Your task to perform on an android device: install app "VLC for Android" Image 0: 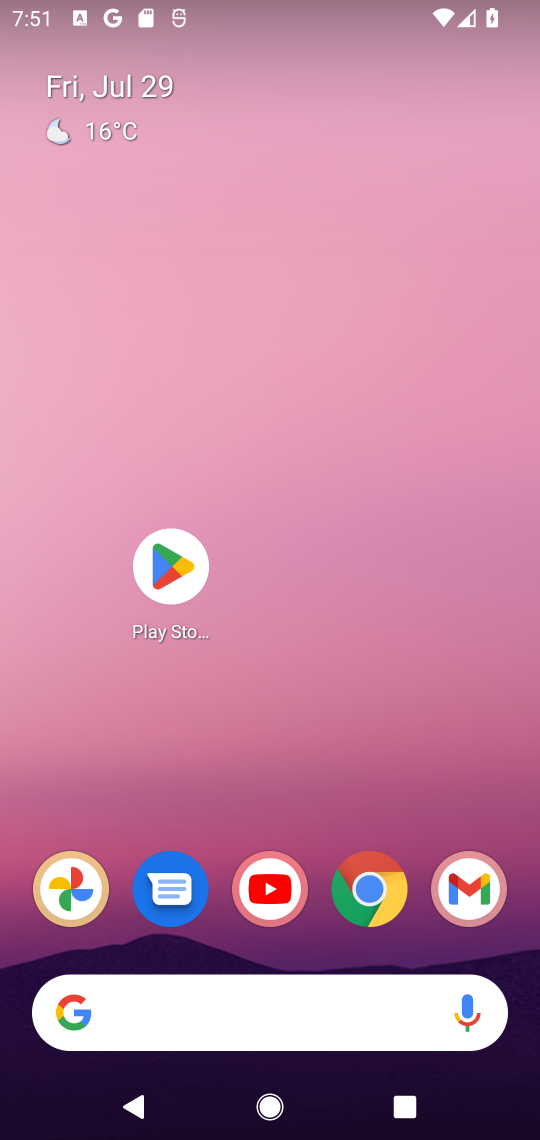
Step 0: click (176, 580)
Your task to perform on an android device: install app "VLC for Android" Image 1: 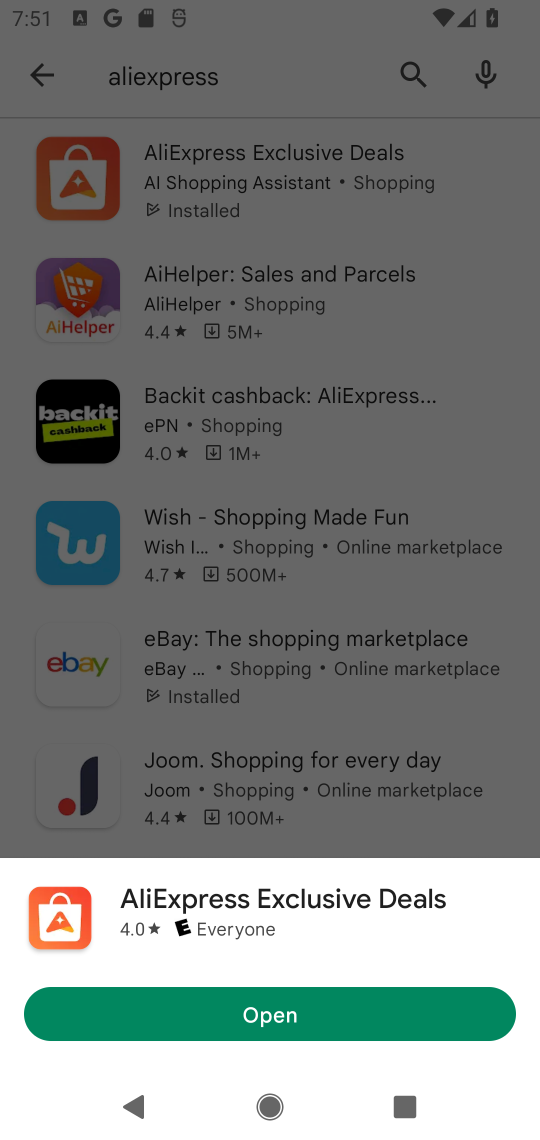
Step 1: click (404, 69)
Your task to perform on an android device: install app "VLC for Android" Image 2: 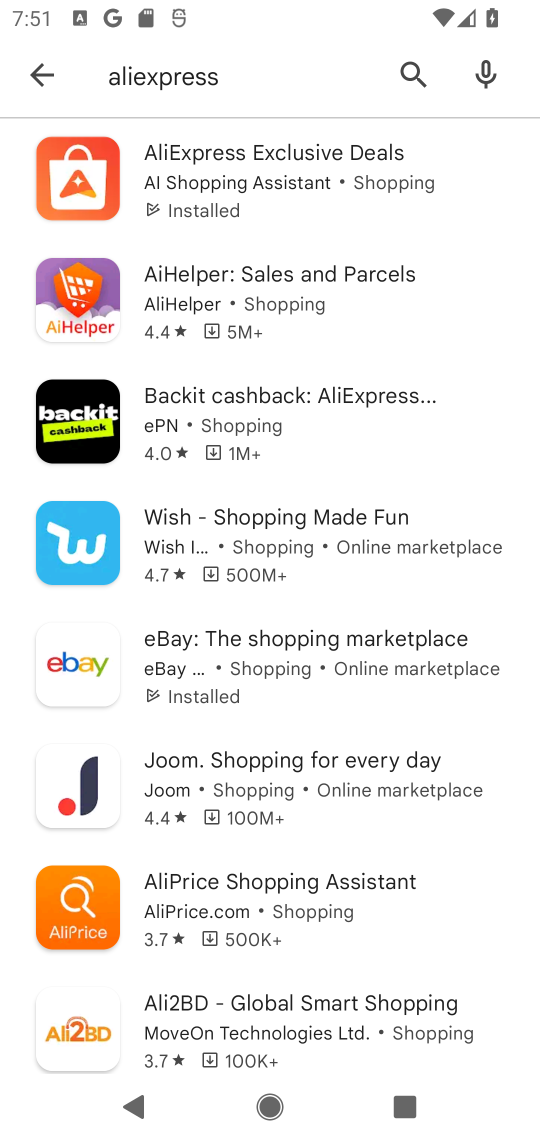
Step 2: click (411, 69)
Your task to perform on an android device: install app "VLC for Android" Image 3: 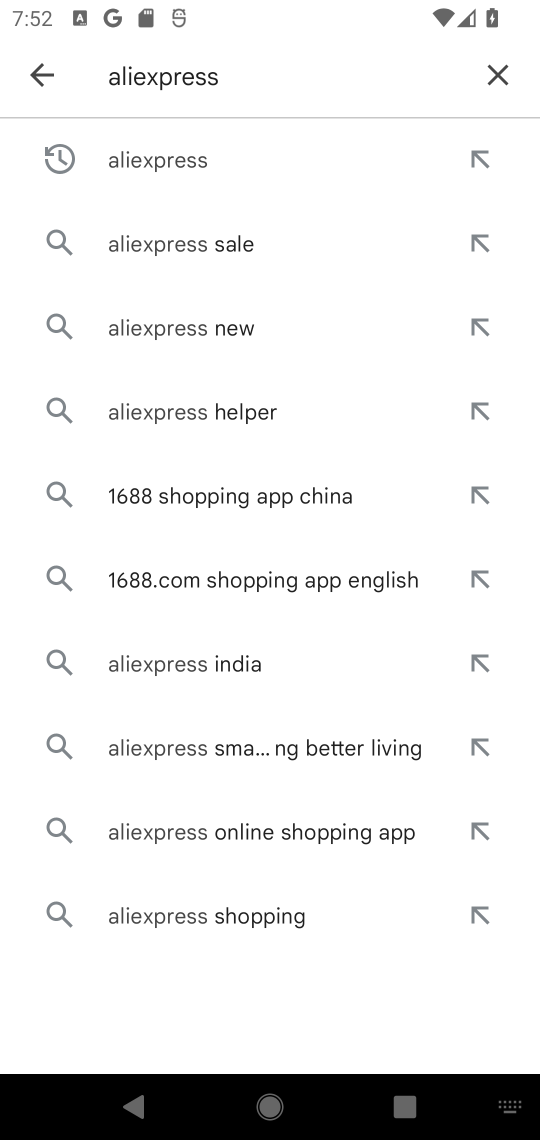
Step 3: click (493, 72)
Your task to perform on an android device: install app "VLC for Android" Image 4: 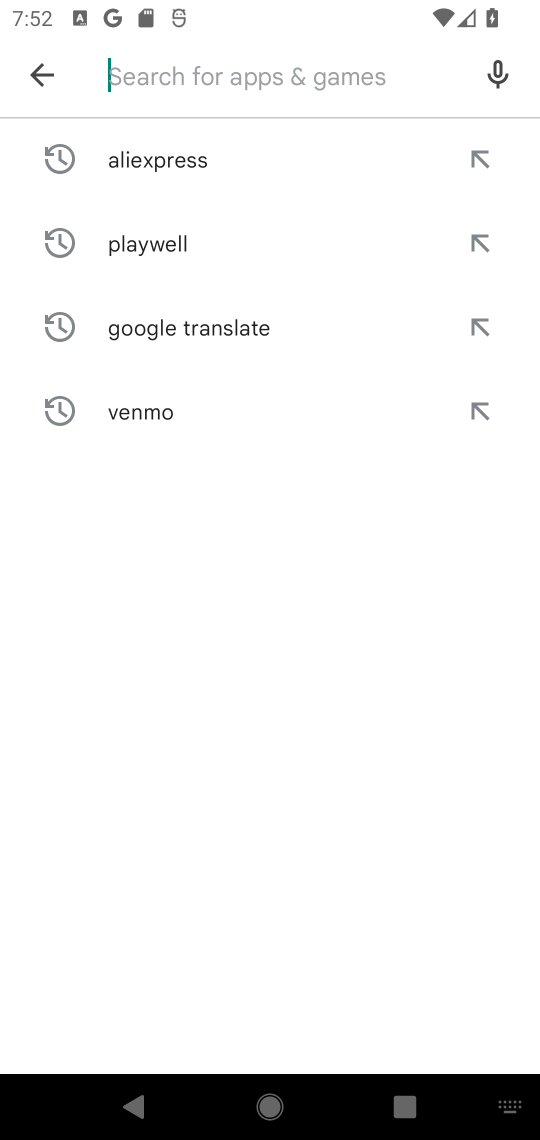
Step 4: type "VLC for Android"
Your task to perform on an android device: install app "VLC for Android" Image 5: 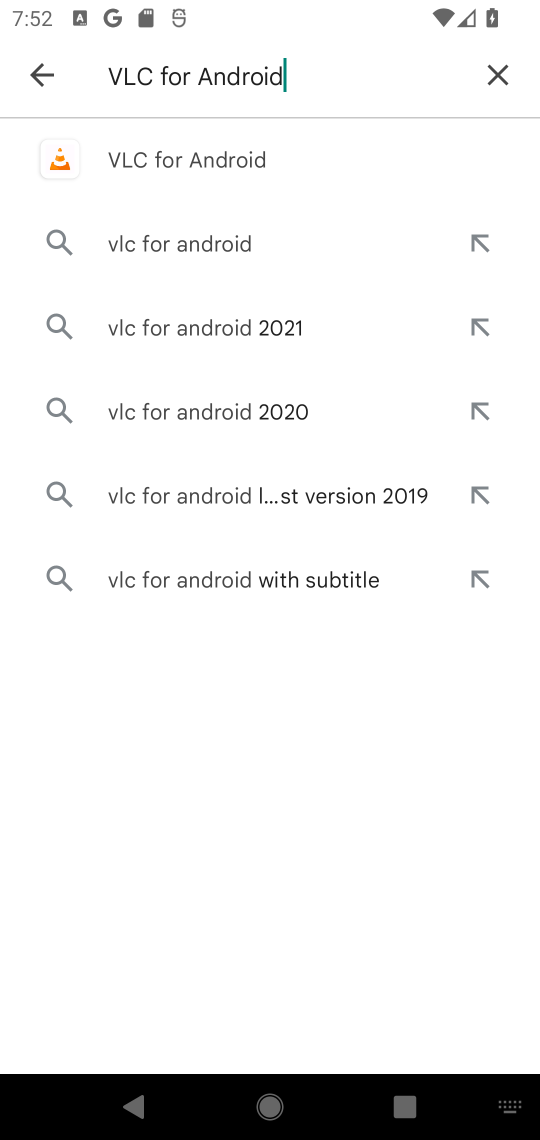
Step 5: click (175, 160)
Your task to perform on an android device: install app "VLC for Android" Image 6: 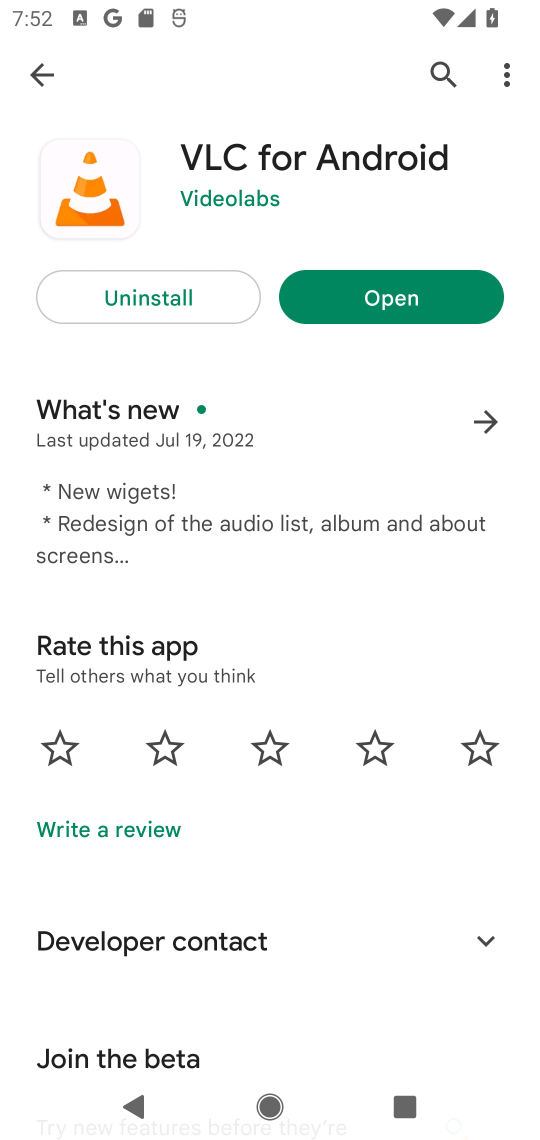
Step 6: task complete